Your task to perform on an android device: turn off sleep mode Image 0: 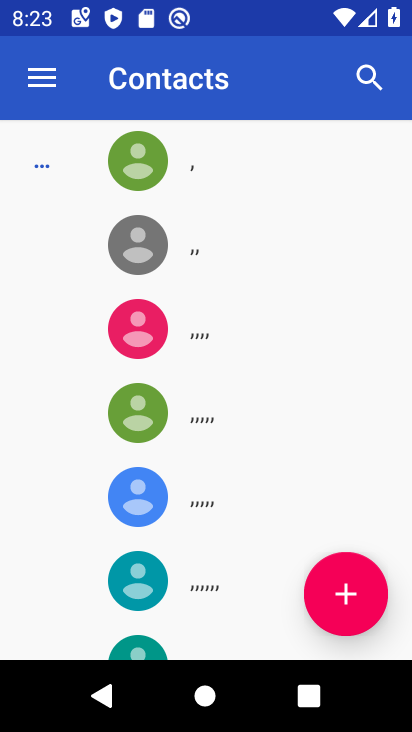
Step 0: press home button
Your task to perform on an android device: turn off sleep mode Image 1: 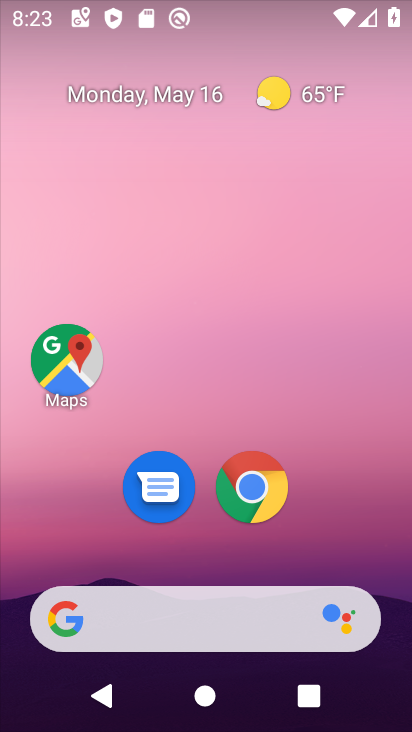
Step 1: drag from (385, 553) to (368, 145)
Your task to perform on an android device: turn off sleep mode Image 2: 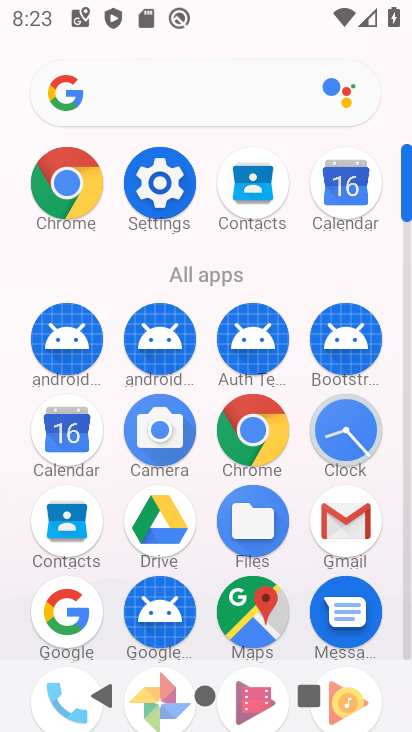
Step 2: click (181, 193)
Your task to perform on an android device: turn off sleep mode Image 3: 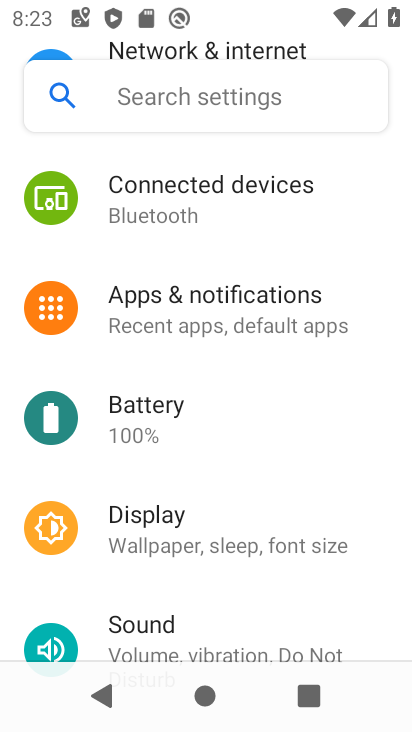
Step 3: drag from (325, 601) to (328, 440)
Your task to perform on an android device: turn off sleep mode Image 4: 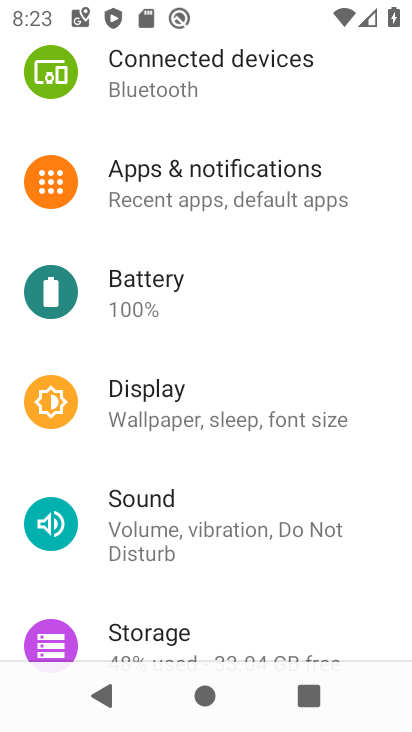
Step 4: drag from (335, 593) to (341, 372)
Your task to perform on an android device: turn off sleep mode Image 5: 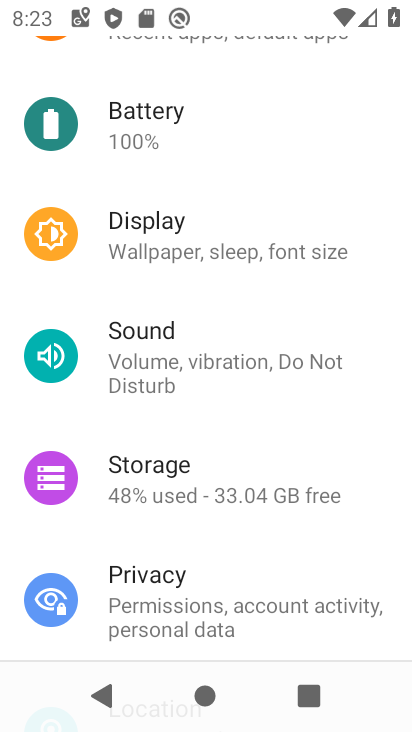
Step 5: drag from (314, 560) to (318, 396)
Your task to perform on an android device: turn off sleep mode Image 6: 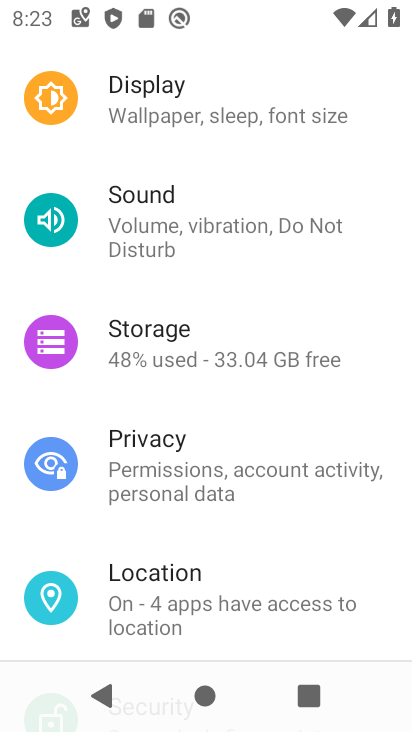
Step 6: drag from (320, 567) to (314, 402)
Your task to perform on an android device: turn off sleep mode Image 7: 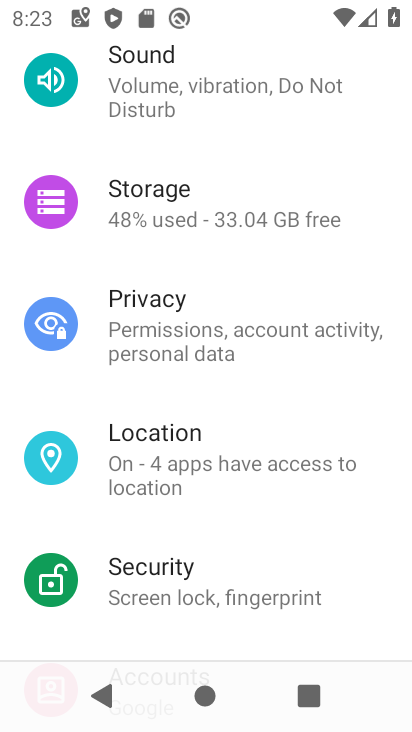
Step 7: drag from (268, 555) to (280, 394)
Your task to perform on an android device: turn off sleep mode Image 8: 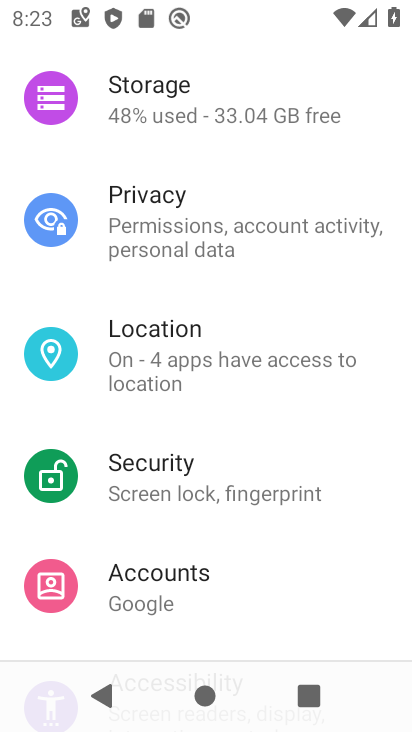
Step 8: drag from (281, 599) to (283, 427)
Your task to perform on an android device: turn off sleep mode Image 9: 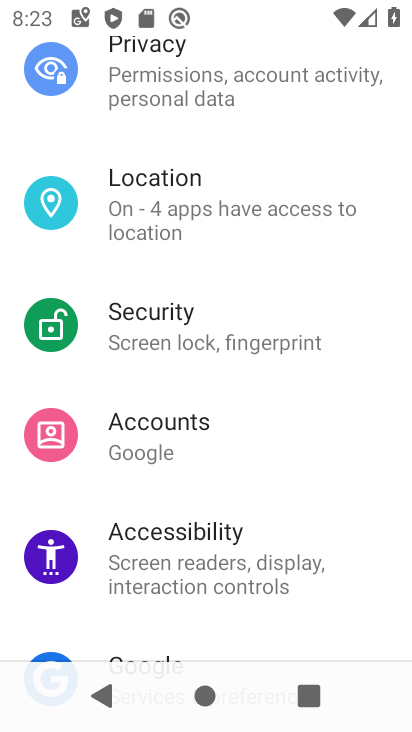
Step 9: drag from (306, 615) to (311, 440)
Your task to perform on an android device: turn off sleep mode Image 10: 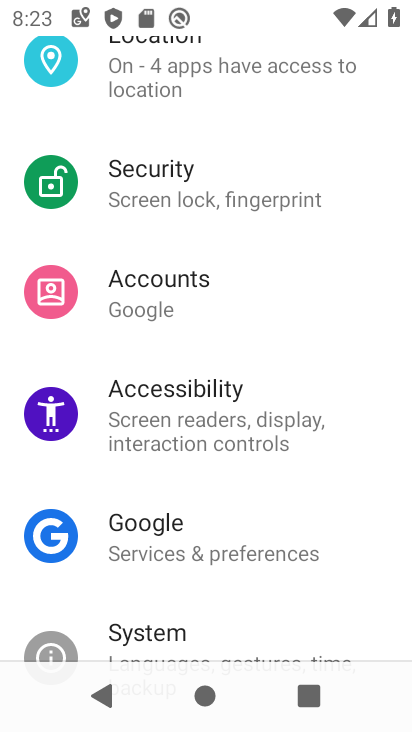
Step 10: drag from (286, 605) to (284, 484)
Your task to perform on an android device: turn off sleep mode Image 11: 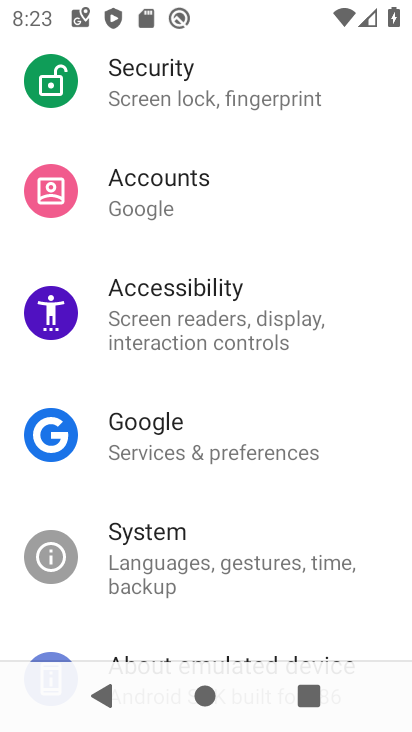
Step 11: drag from (273, 612) to (279, 464)
Your task to perform on an android device: turn off sleep mode Image 12: 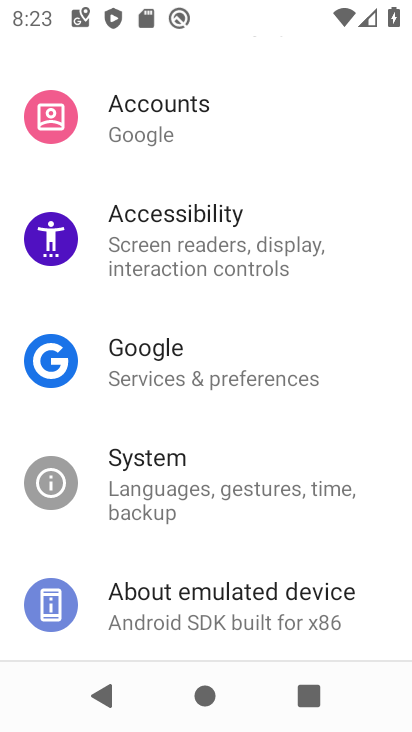
Step 12: drag from (366, 302) to (375, 476)
Your task to perform on an android device: turn off sleep mode Image 13: 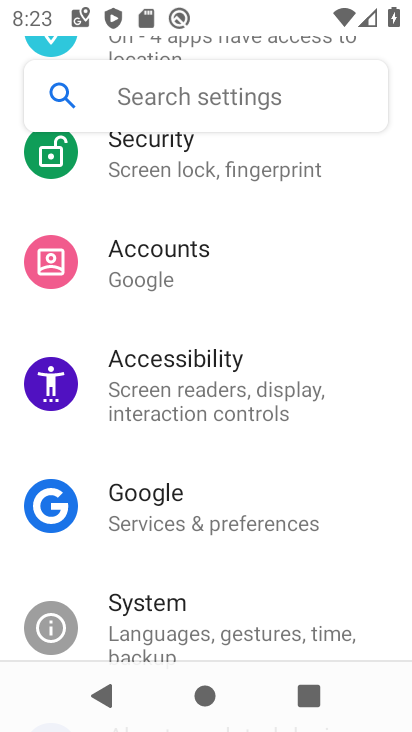
Step 13: drag from (366, 324) to (352, 469)
Your task to perform on an android device: turn off sleep mode Image 14: 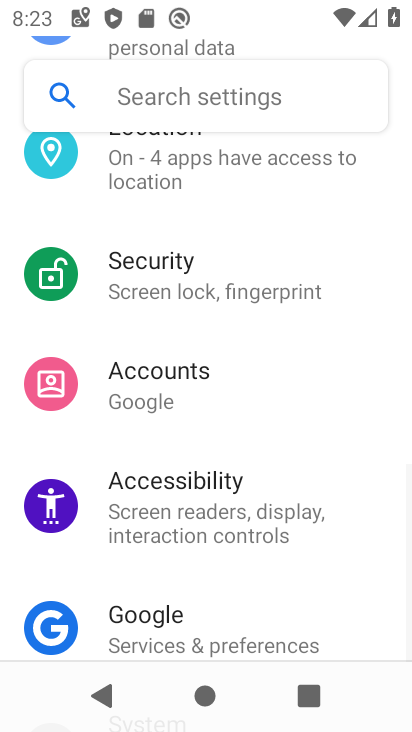
Step 14: drag from (336, 323) to (332, 471)
Your task to perform on an android device: turn off sleep mode Image 15: 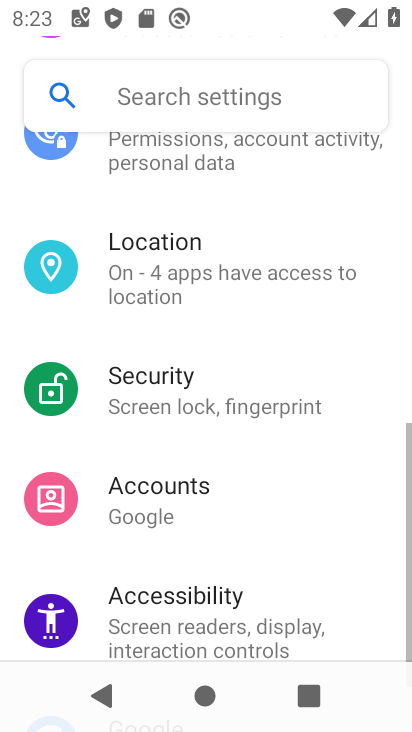
Step 15: drag from (324, 321) to (318, 507)
Your task to perform on an android device: turn off sleep mode Image 16: 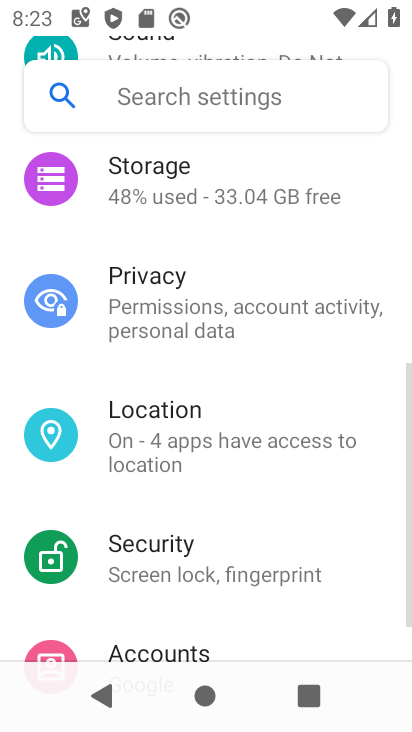
Step 16: drag from (333, 332) to (325, 492)
Your task to perform on an android device: turn off sleep mode Image 17: 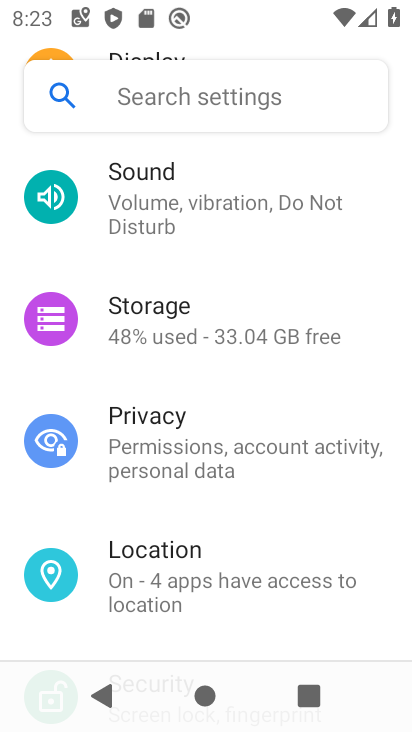
Step 17: drag from (348, 274) to (332, 435)
Your task to perform on an android device: turn off sleep mode Image 18: 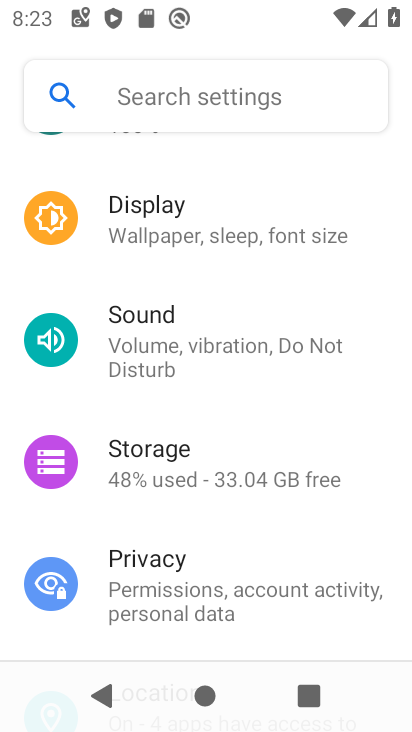
Step 18: drag from (322, 285) to (309, 419)
Your task to perform on an android device: turn off sleep mode Image 19: 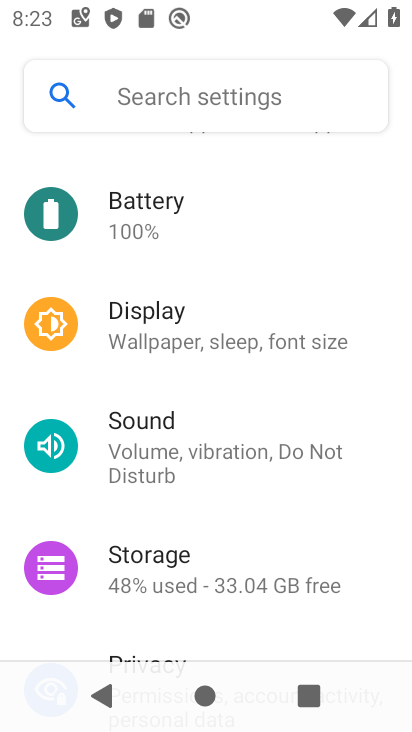
Step 19: click (222, 351)
Your task to perform on an android device: turn off sleep mode Image 20: 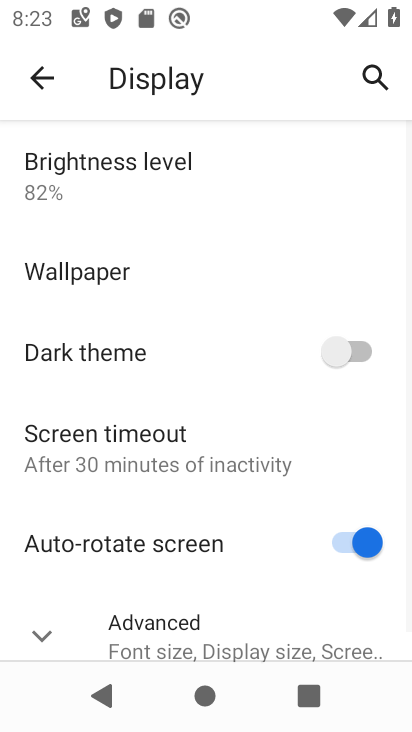
Step 20: drag from (249, 576) to (253, 389)
Your task to perform on an android device: turn off sleep mode Image 21: 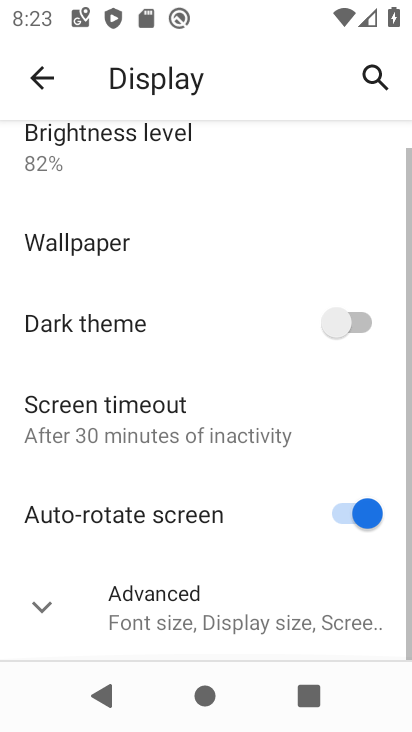
Step 21: click (196, 632)
Your task to perform on an android device: turn off sleep mode Image 22: 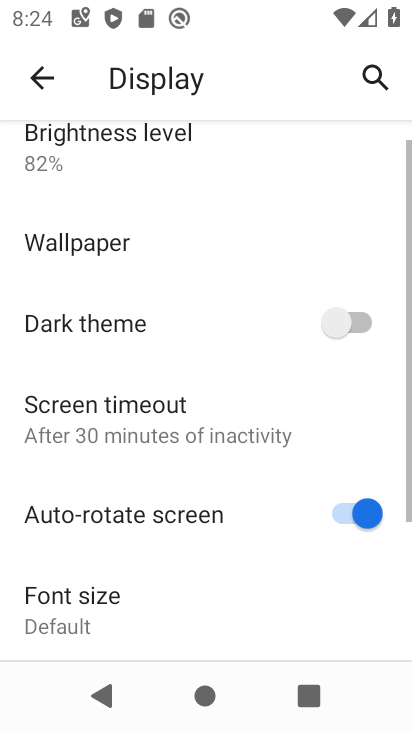
Step 22: task complete